Your task to perform on an android device: Play the last video I watched on Youtube Image 0: 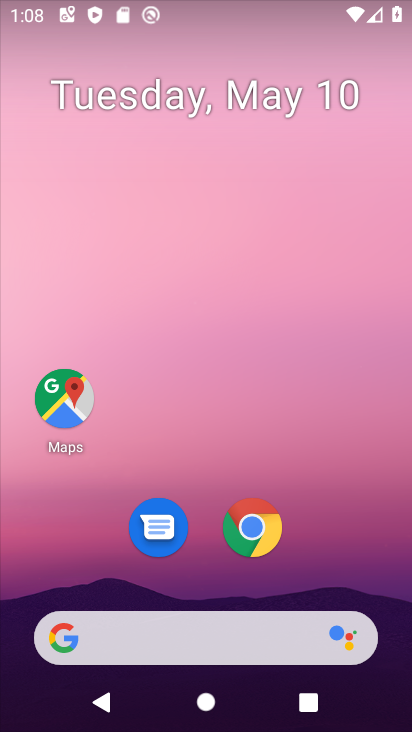
Step 0: drag from (101, 511) to (146, 184)
Your task to perform on an android device: Play the last video I watched on Youtube Image 1: 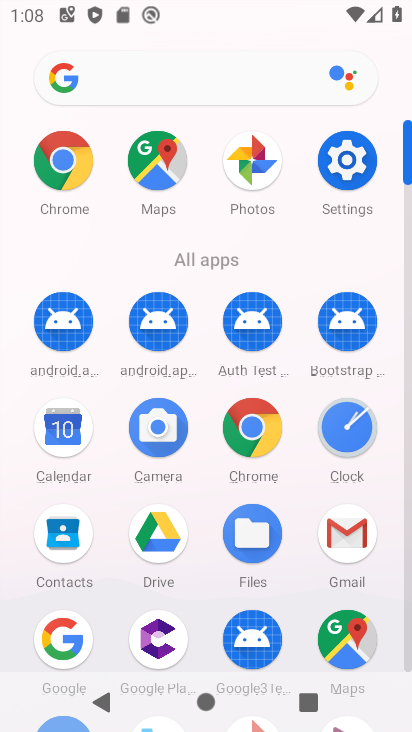
Step 1: drag from (204, 589) to (246, 280)
Your task to perform on an android device: Play the last video I watched on Youtube Image 2: 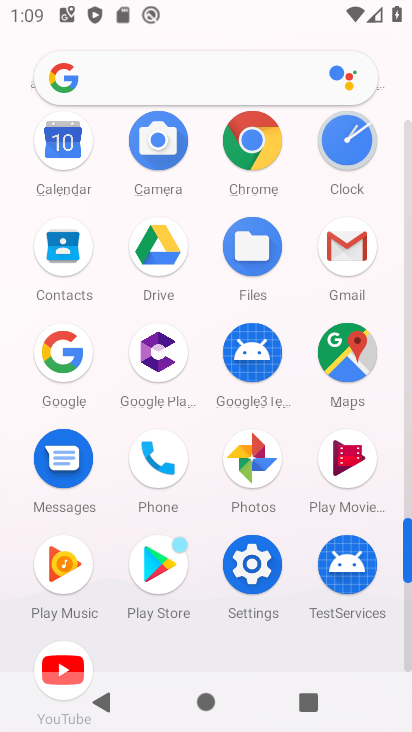
Step 2: click (67, 655)
Your task to perform on an android device: Play the last video I watched on Youtube Image 3: 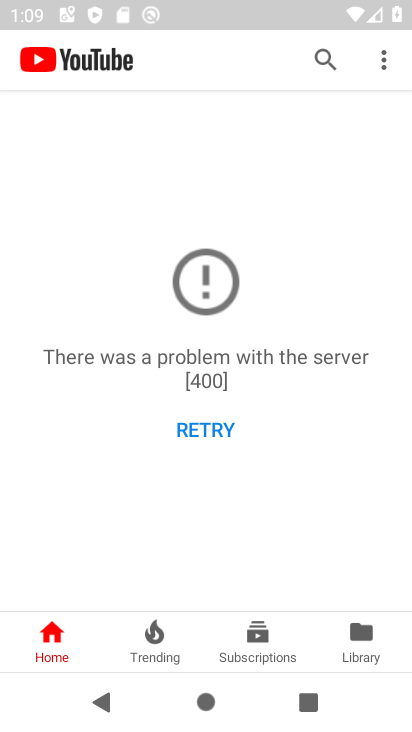
Step 3: click (349, 648)
Your task to perform on an android device: Play the last video I watched on Youtube Image 4: 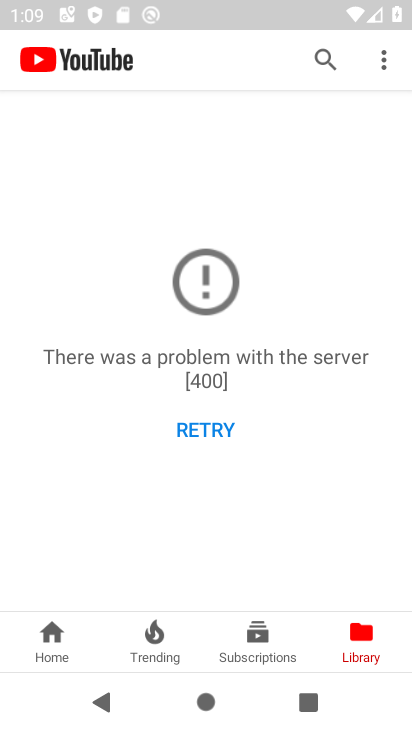
Step 4: task complete